Your task to perform on an android device: turn off smart reply in the gmail app Image 0: 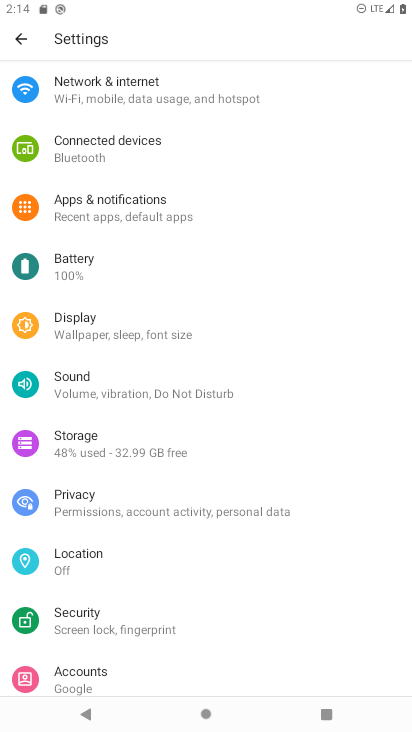
Step 0: press home button
Your task to perform on an android device: turn off smart reply in the gmail app Image 1: 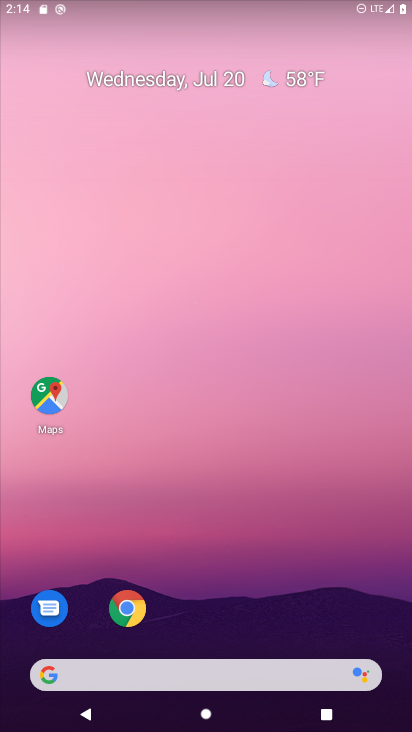
Step 1: drag from (234, 269) to (234, 218)
Your task to perform on an android device: turn off smart reply in the gmail app Image 2: 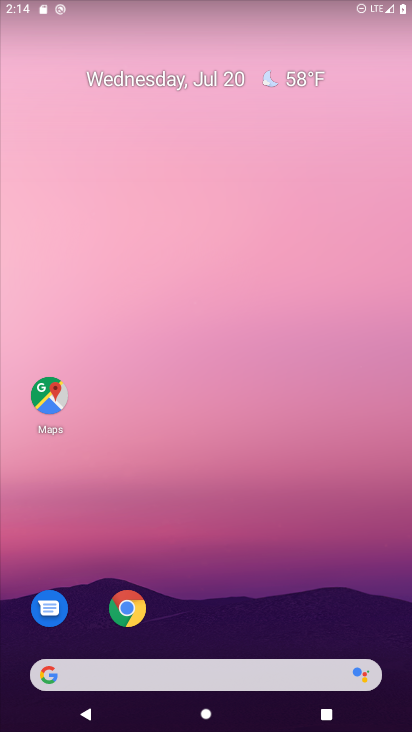
Step 2: drag from (243, 726) to (237, 109)
Your task to perform on an android device: turn off smart reply in the gmail app Image 3: 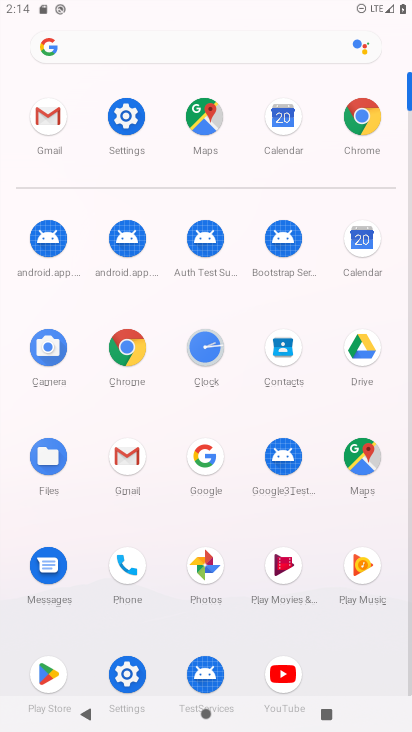
Step 3: click (50, 128)
Your task to perform on an android device: turn off smart reply in the gmail app Image 4: 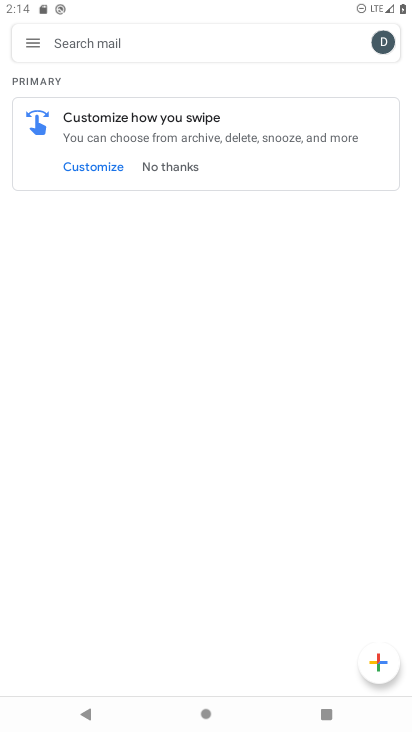
Step 4: click (38, 46)
Your task to perform on an android device: turn off smart reply in the gmail app Image 5: 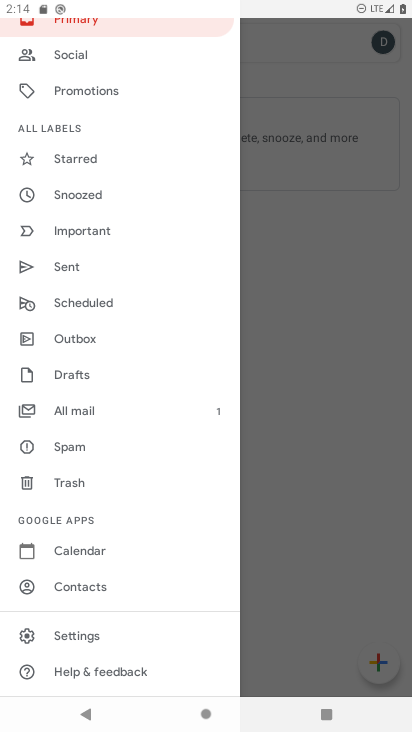
Step 5: click (69, 634)
Your task to perform on an android device: turn off smart reply in the gmail app Image 6: 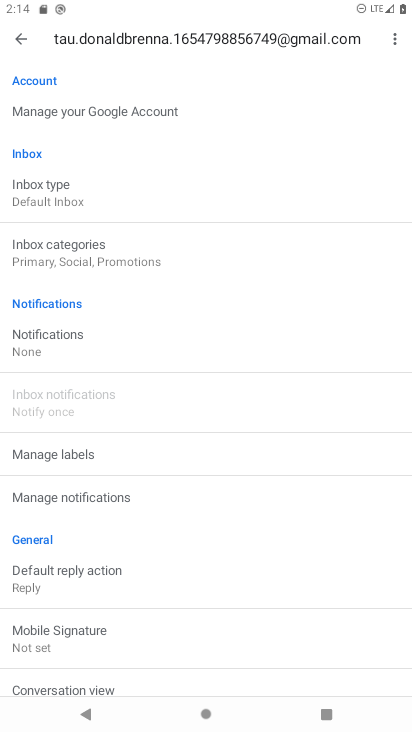
Step 6: drag from (169, 640) to (170, 268)
Your task to perform on an android device: turn off smart reply in the gmail app Image 7: 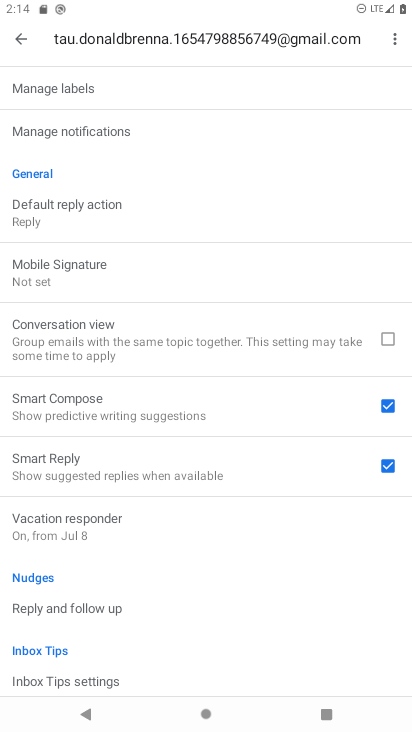
Step 7: click (384, 462)
Your task to perform on an android device: turn off smart reply in the gmail app Image 8: 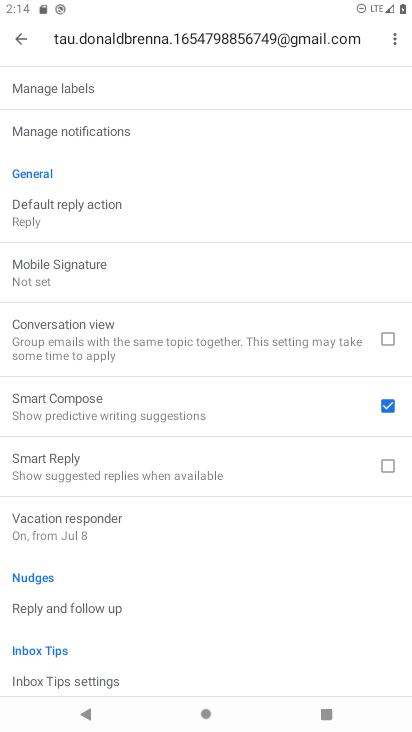
Step 8: task complete